Your task to perform on an android device: Search for flights from Zurich to Buenos aires Image 0: 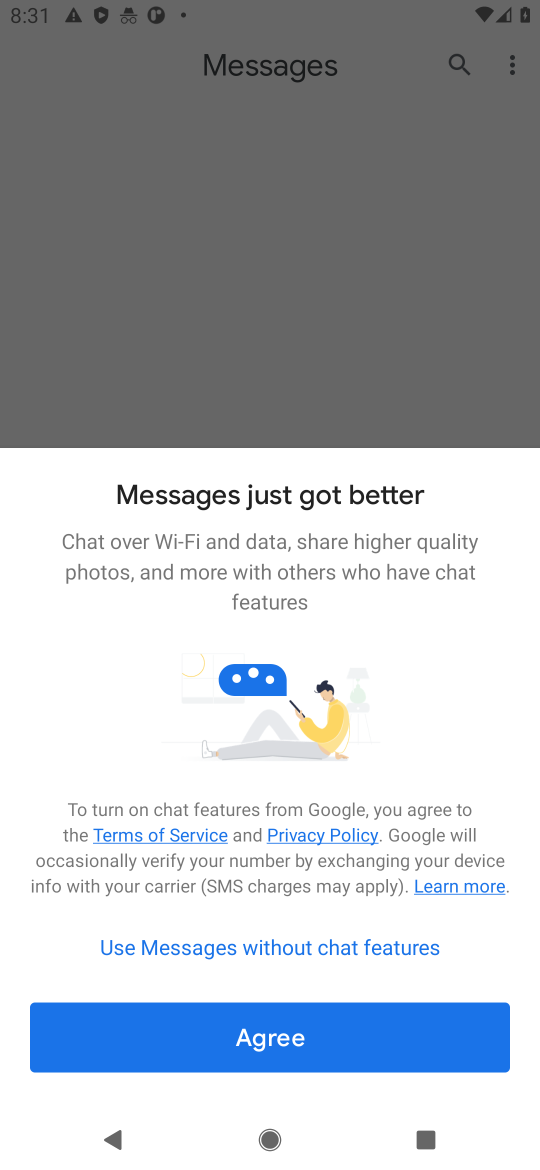
Step 0: press home button
Your task to perform on an android device: Search for flights from Zurich to Buenos aires Image 1: 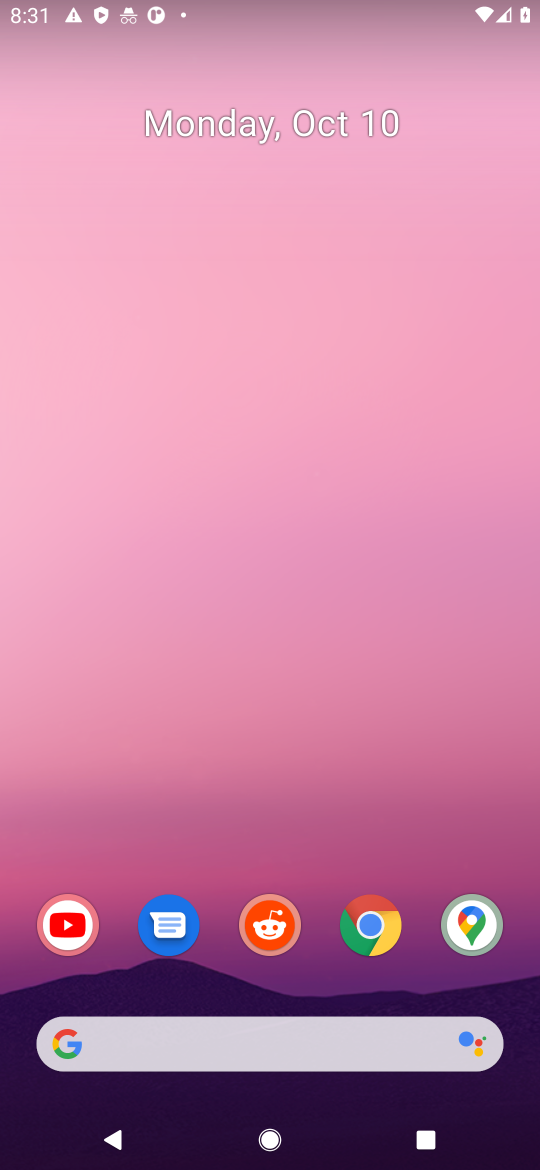
Step 1: drag from (308, 886) to (385, 154)
Your task to perform on an android device: Search for flights from Zurich to Buenos aires Image 2: 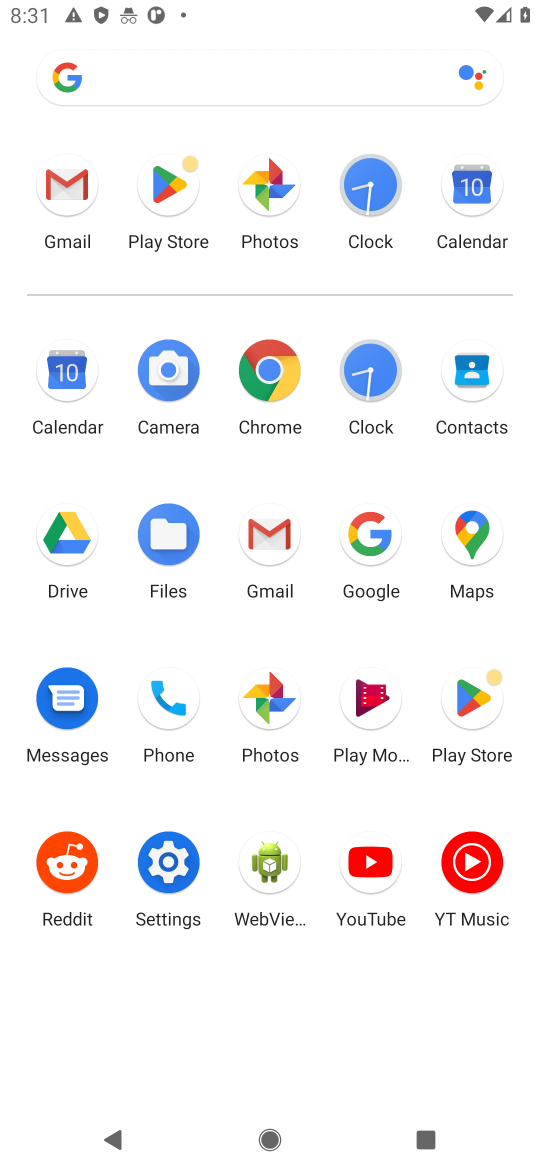
Step 2: click (273, 368)
Your task to perform on an android device: Search for flights from Zurich to Buenos aires Image 3: 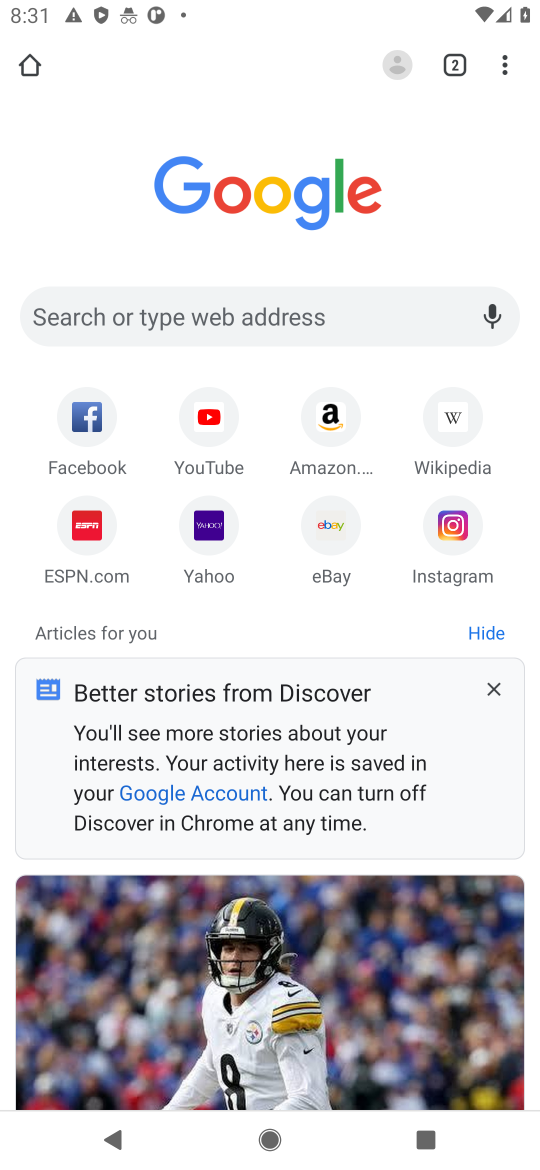
Step 3: click (255, 313)
Your task to perform on an android device: Search for flights from Zurich to Buenos aires Image 4: 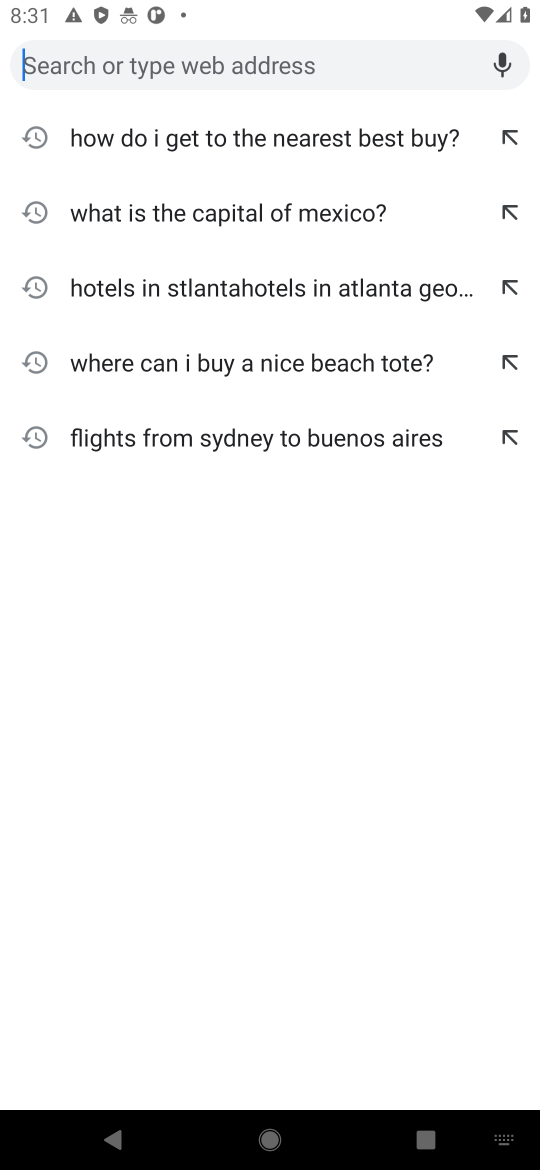
Step 4: type "flights from Zurich to Buenos aires"
Your task to perform on an android device: Search for flights from Zurich to Buenos aires Image 5: 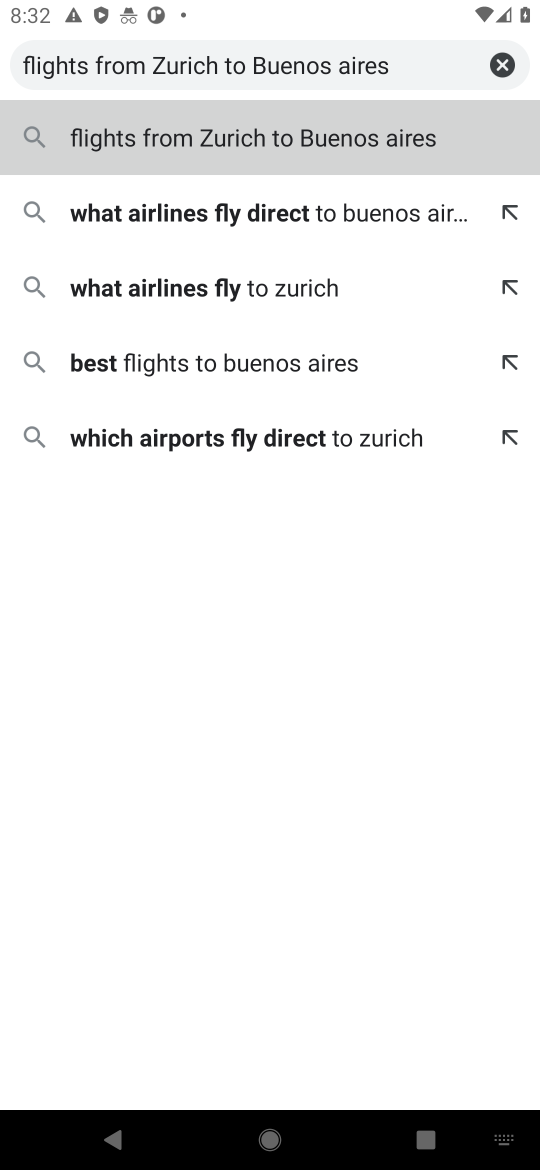
Step 5: press enter
Your task to perform on an android device: Search for flights from Zurich to Buenos aires Image 6: 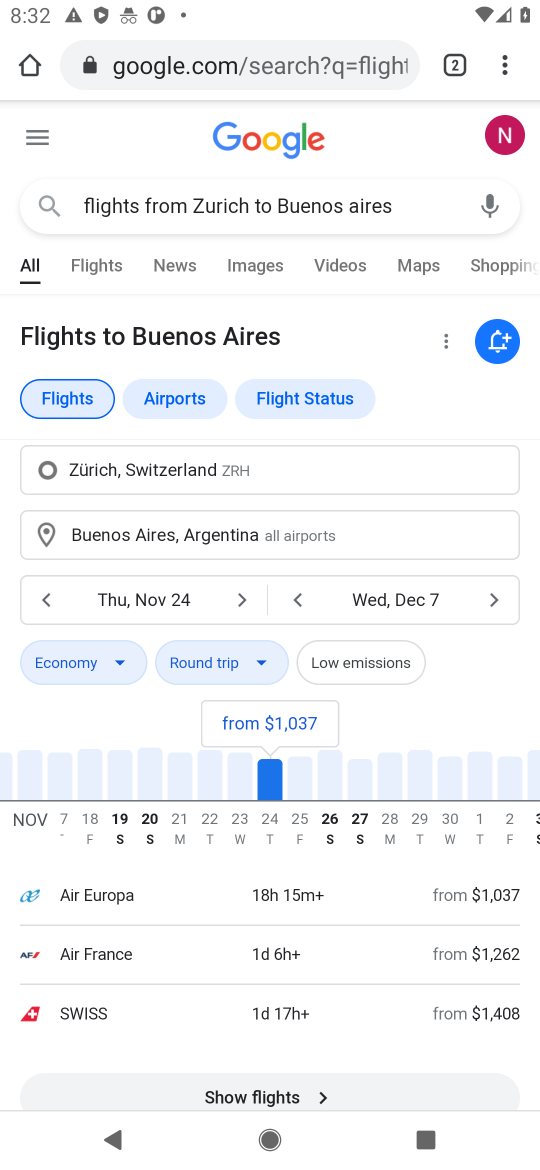
Step 6: task complete